Your task to perform on an android device: Open the stopwatch Image 0: 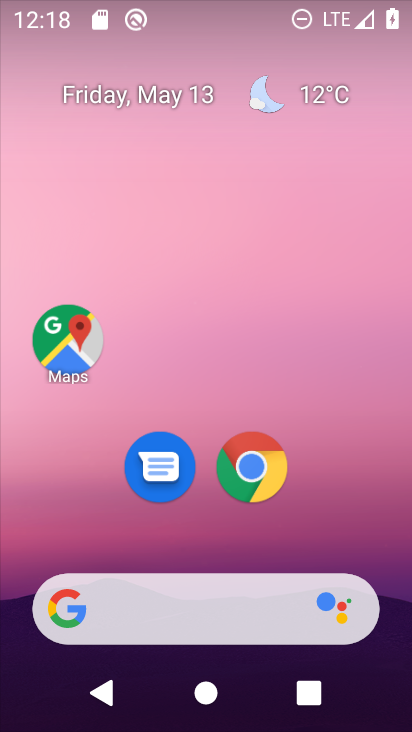
Step 0: drag from (361, 445) to (278, 14)
Your task to perform on an android device: Open the stopwatch Image 1: 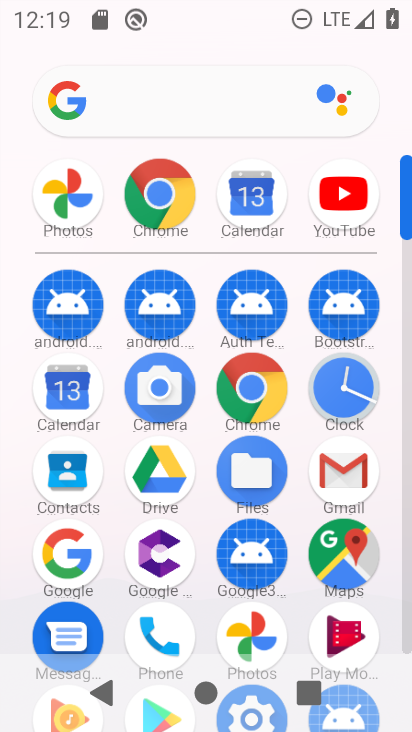
Step 1: click (346, 387)
Your task to perform on an android device: Open the stopwatch Image 2: 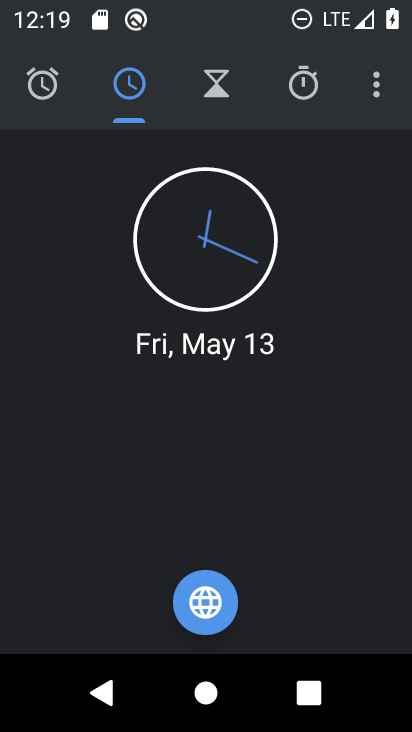
Step 2: drag from (374, 81) to (31, 178)
Your task to perform on an android device: Open the stopwatch Image 3: 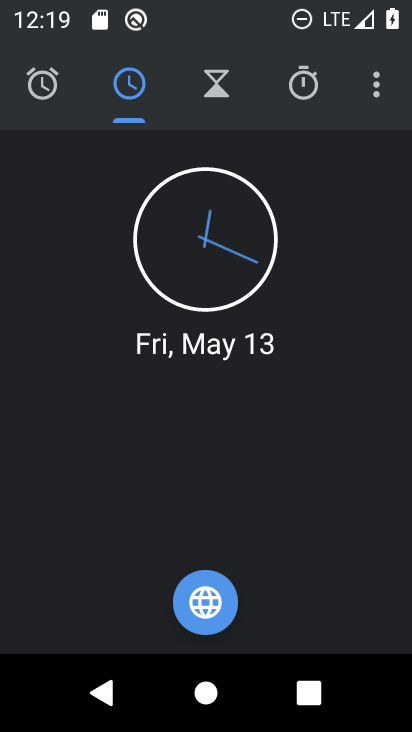
Step 3: click (303, 66)
Your task to perform on an android device: Open the stopwatch Image 4: 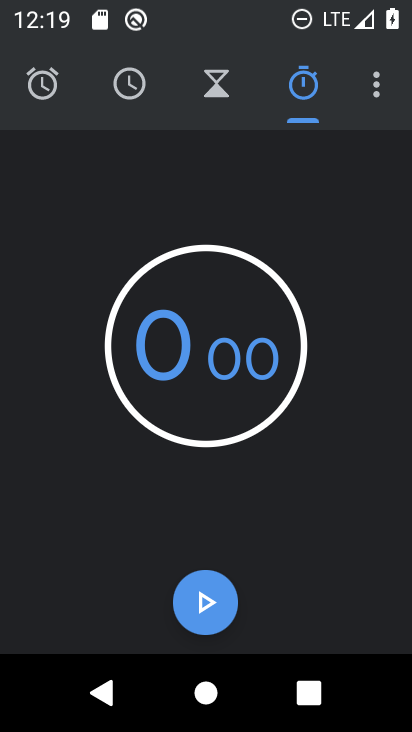
Step 4: task complete